Your task to perform on an android device: Open location settings Image 0: 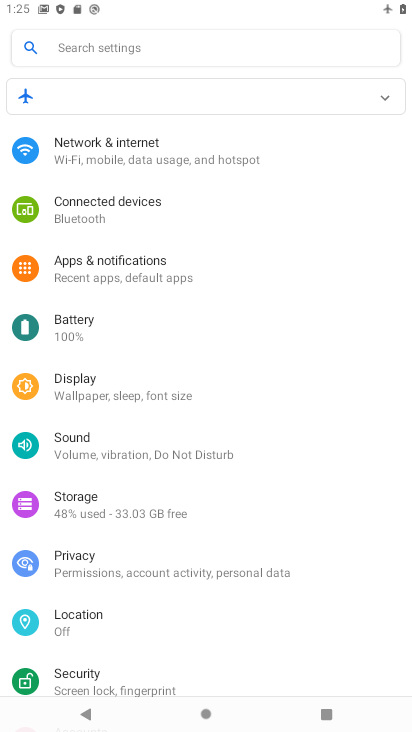
Step 0: click (61, 618)
Your task to perform on an android device: Open location settings Image 1: 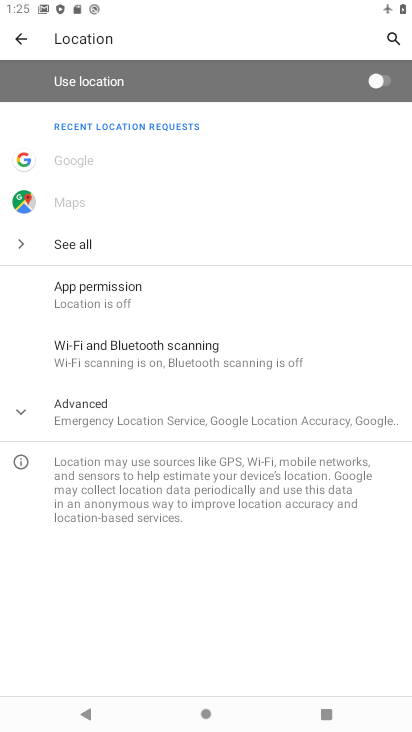
Step 1: task complete